Your task to perform on an android device: Search for seafood restaurants on Google Maps Image 0: 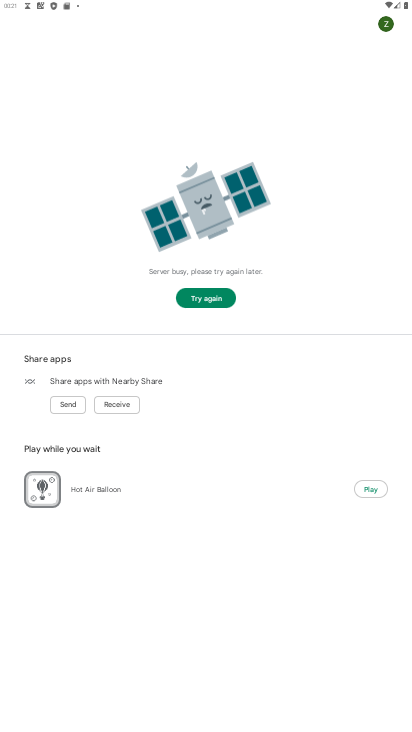
Step 0: press home button
Your task to perform on an android device: Search for seafood restaurants on Google Maps Image 1: 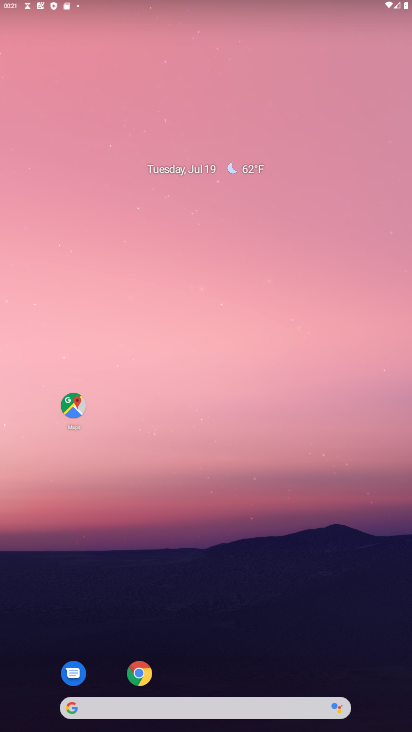
Step 1: drag from (273, 616) to (261, 273)
Your task to perform on an android device: Search for seafood restaurants on Google Maps Image 2: 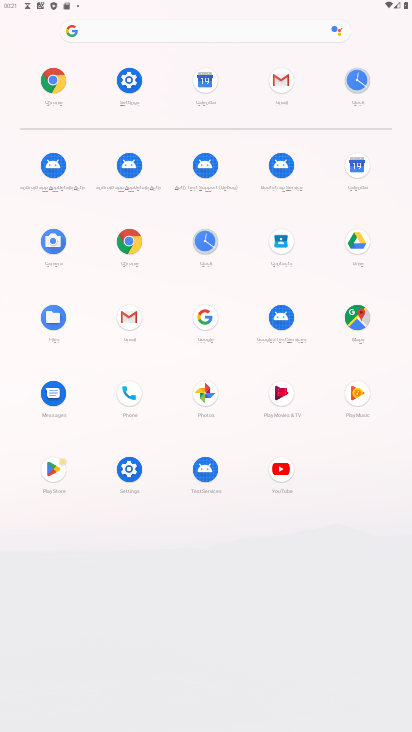
Step 2: click (353, 310)
Your task to perform on an android device: Search for seafood restaurants on Google Maps Image 3: 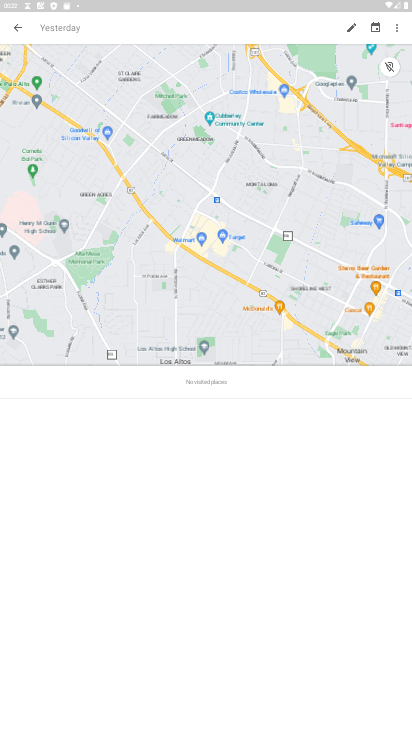
Step 3: click (14, 23)
Your task to perform on an android device: Search for seafood restaurants on Google Maps Image 4: 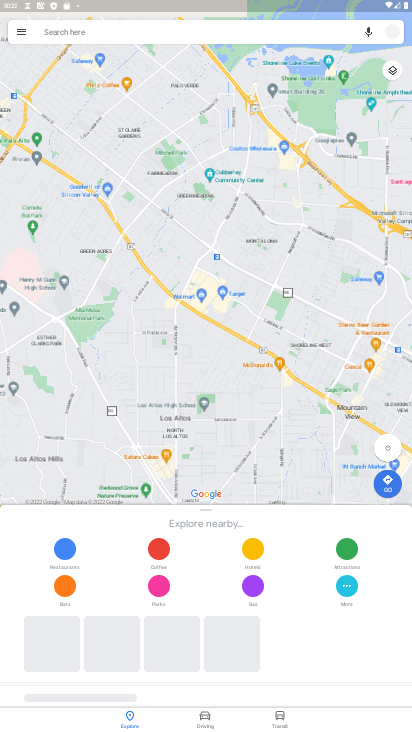
Step 4: click (22, 28)
Your task to perform on an android device: Search for seafood restaurants on Google Maps Image 5: 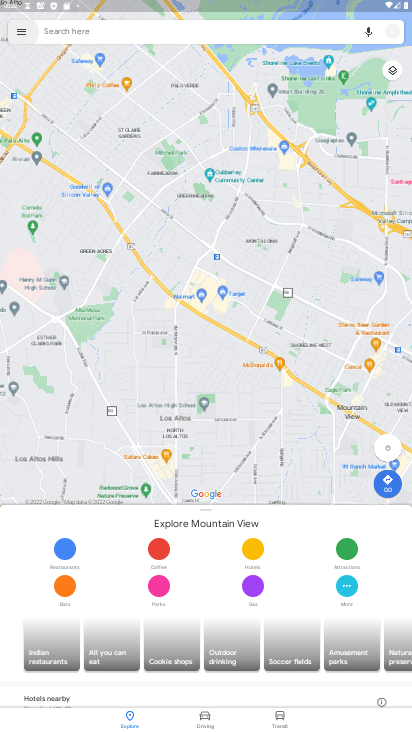
Step 5: click (155, 33)
Your task to perform on an android device: Search for seafood restaurants on Google Maps Image 6: 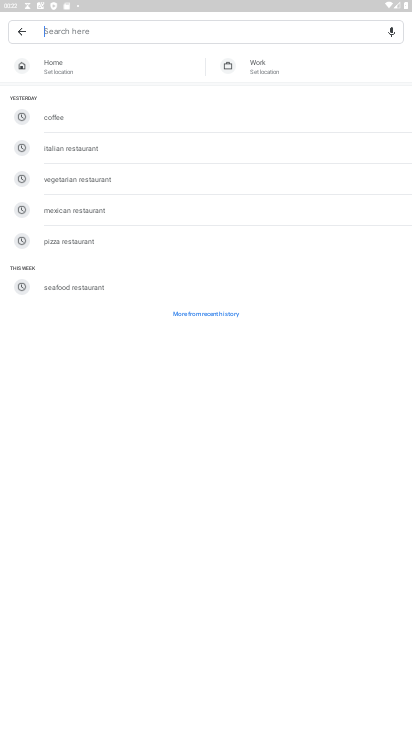
Step 6: click (225, 35)
Your task to perform on an android device: Search for seafood restaurants on Google Maps Image 7: 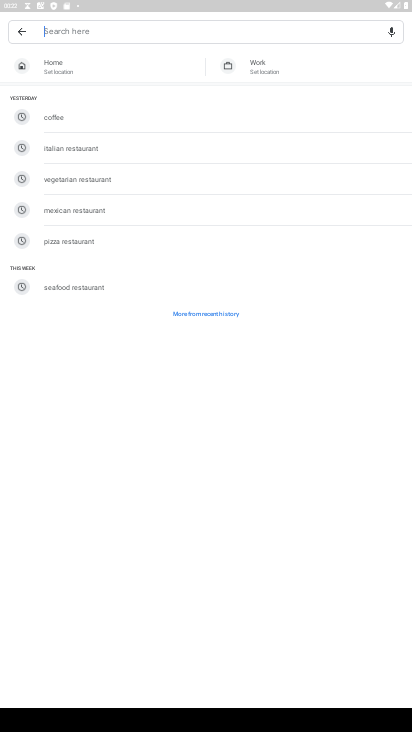
Step 7: click (97, 288)
Your task to perform on an android device: Search for seafood restaurants on Google Maps Image 8: 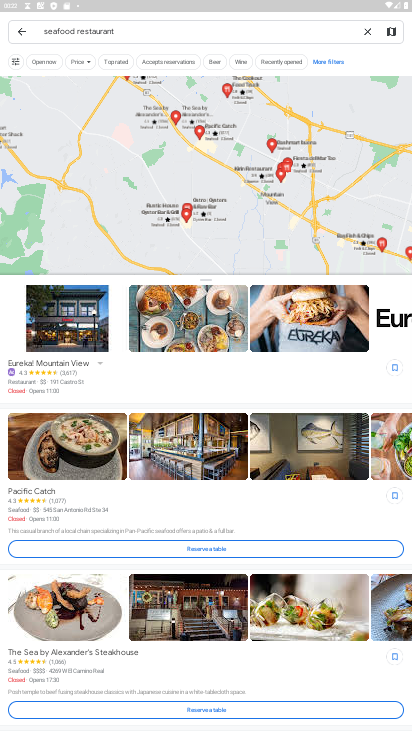
Step 8: task complete